Your task to perform on an android device: allow cookies in the chrome app Image 0: 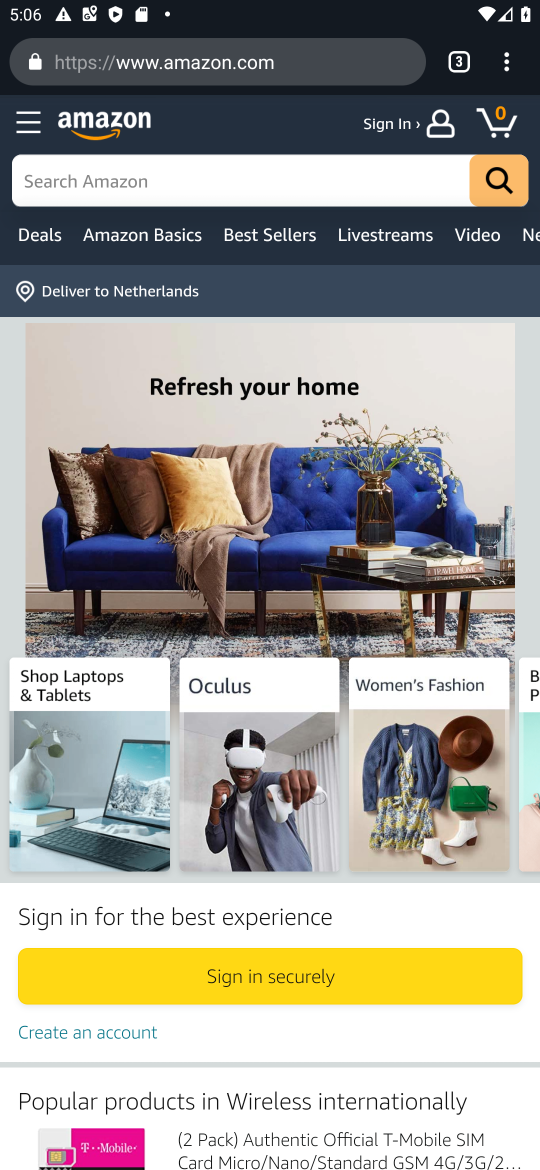
Step 0: press home button
Your task to perform on an android device: allow cookies in the chrome app Image 1: 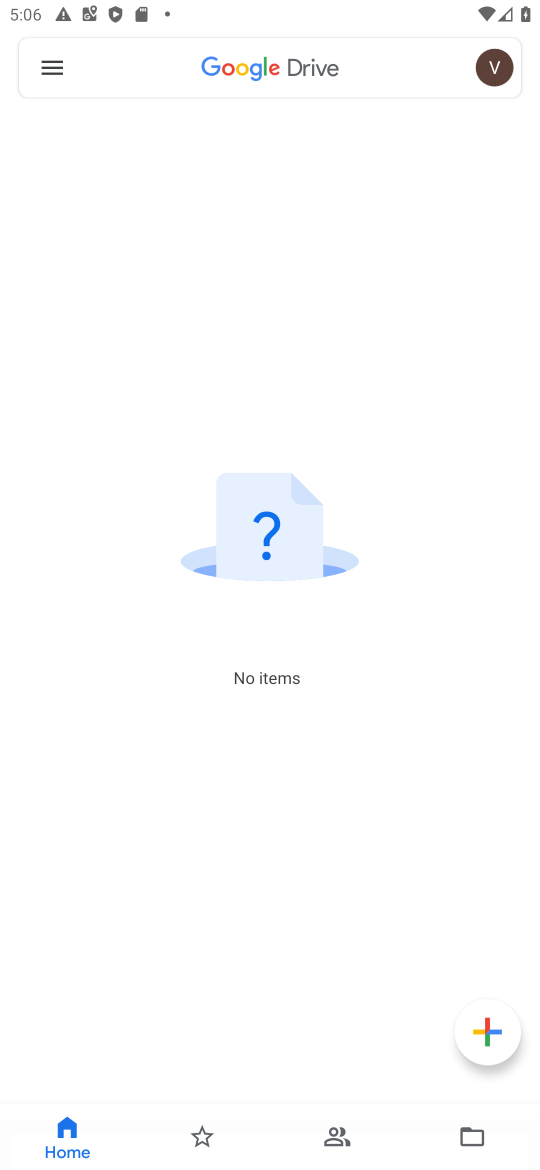
Step 1: press home button
Your task to perform on an android device: allow cookies in the chrome app Image 2: 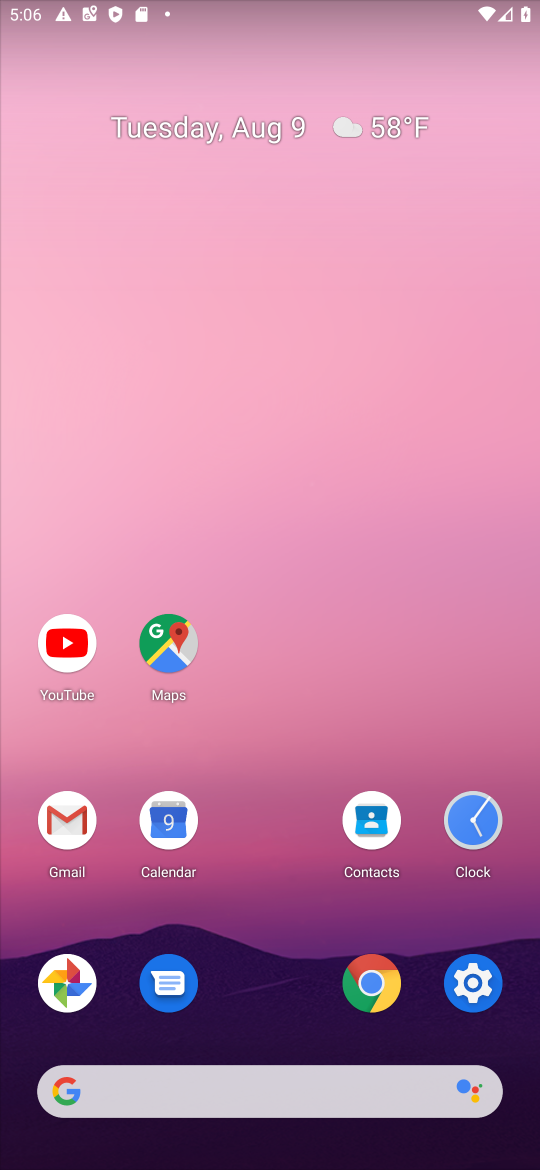
Step 2: click (374, 970)
Your task to perform on an android device: allow cookies in the chrome app Image 3: 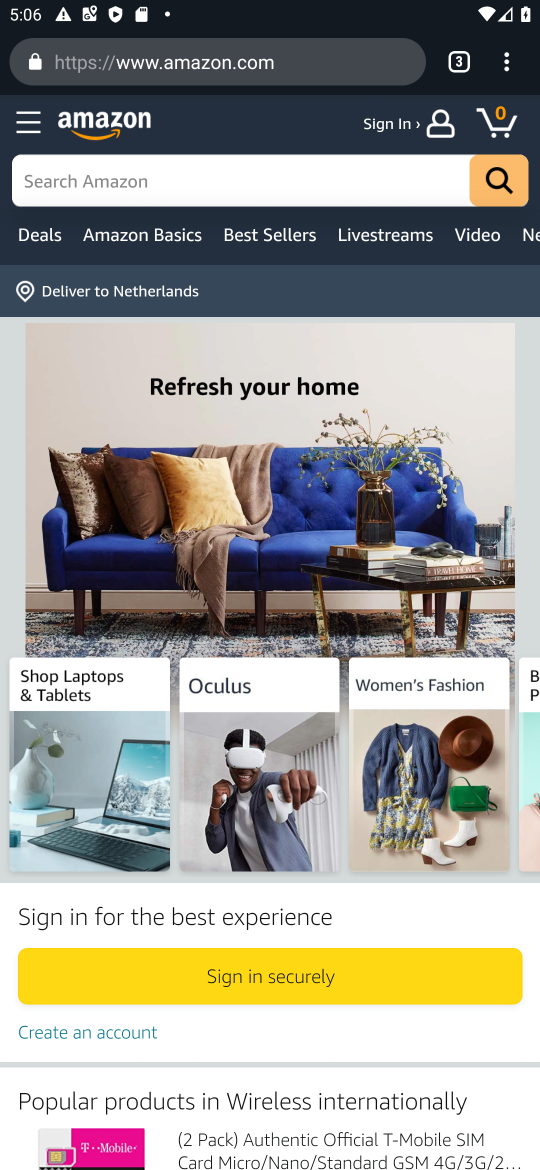
Step 3: click (504, 73)
Your task to perform on an android device: allow cookies in the chrome app Image 4: 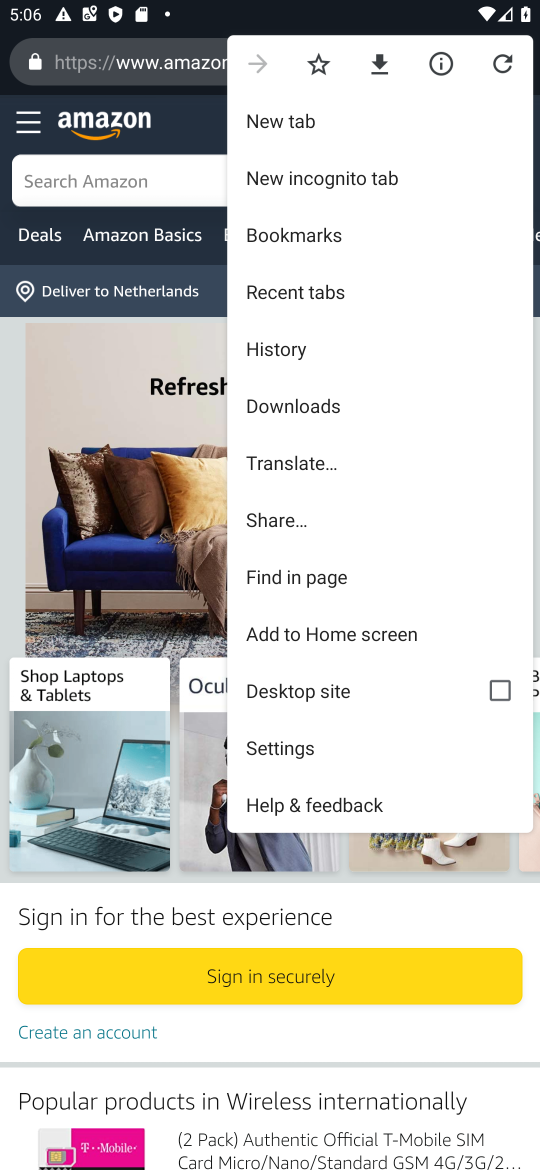
Step 4: click (258, 751)
Your task to perform on an android device: allow cookies in the chrome app Image 5: 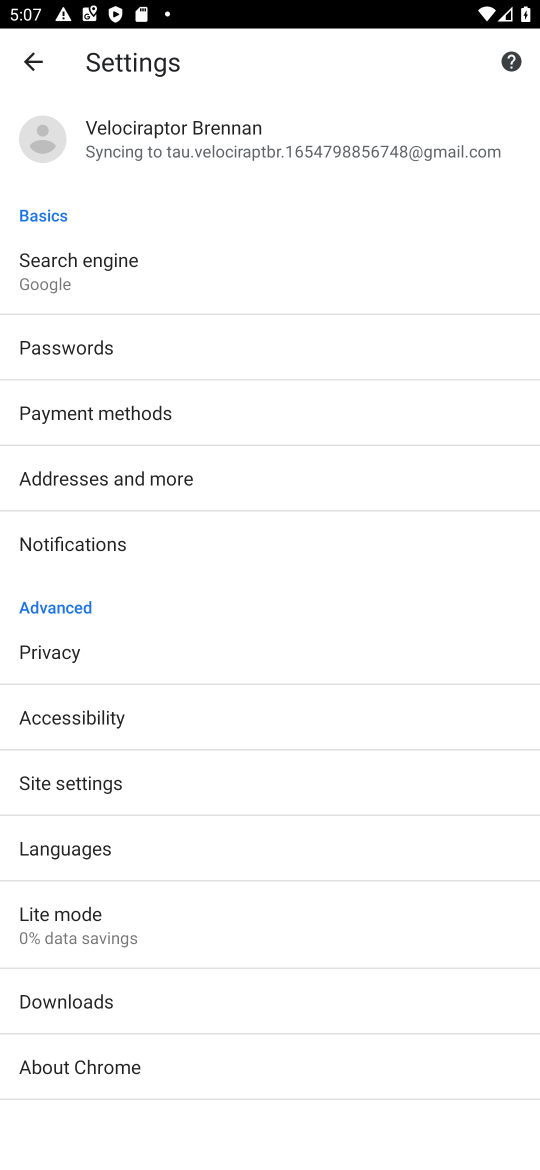
Step 5: click (67, 777)
Your task to perform on an android device: allow cookies in the chrome app Image 6: 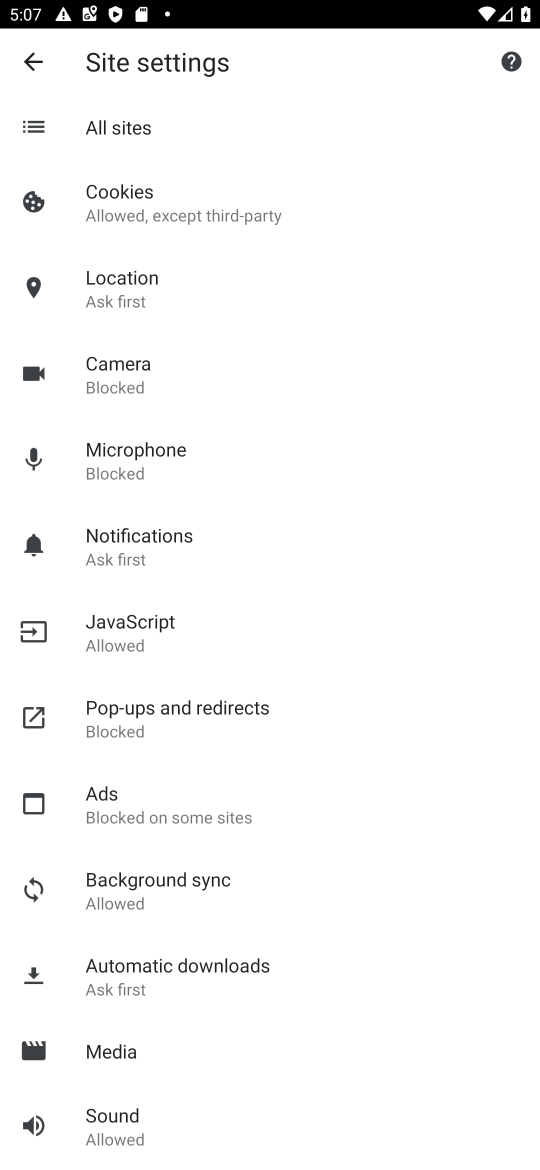
Step 6: click (131, 198)
Your task to perform on an android device: allow cookies in the chrome app Image 7: 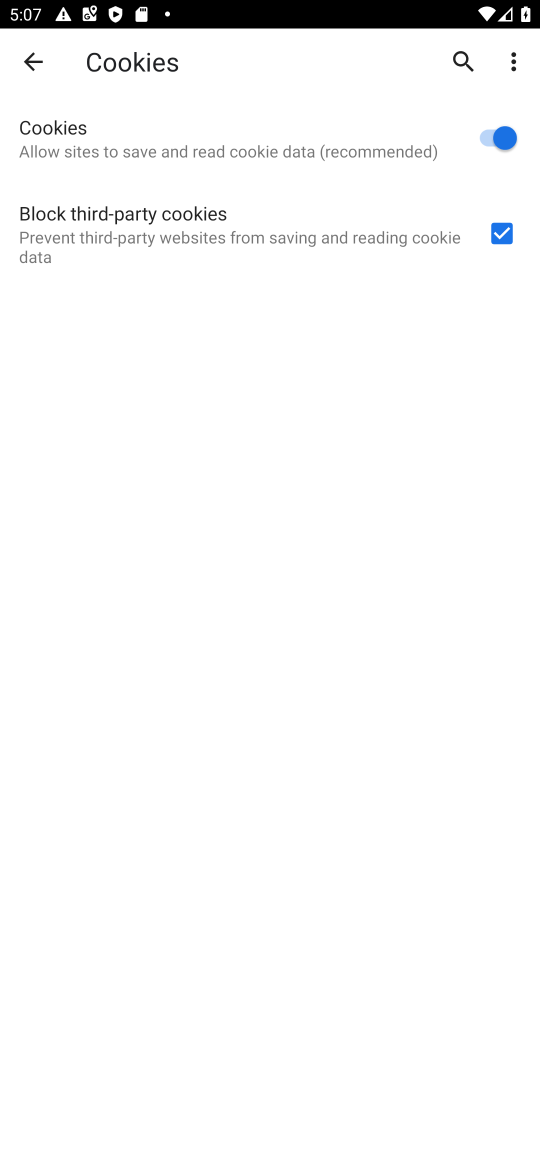
Step 7: task complete